Your task to perform on an android device: Open Wikipedia Image 0: 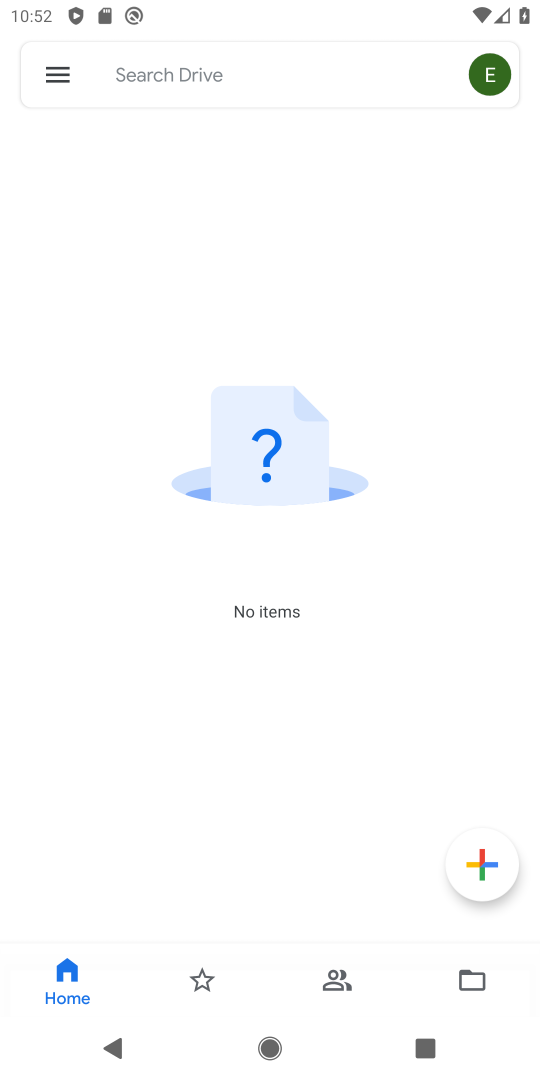
Step 0: press home button
Your task to perform on an android device: Open Wikipedia Image 1: 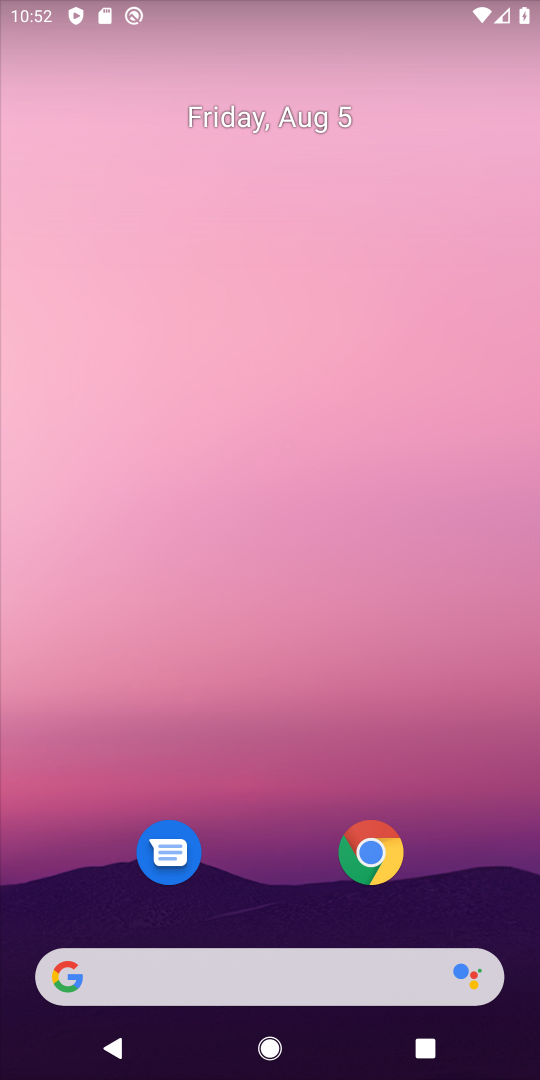
Step 1: drag from (276, 895) to (242, 508)
Your task to perform on an android device: Open Wikipedia Image 2: 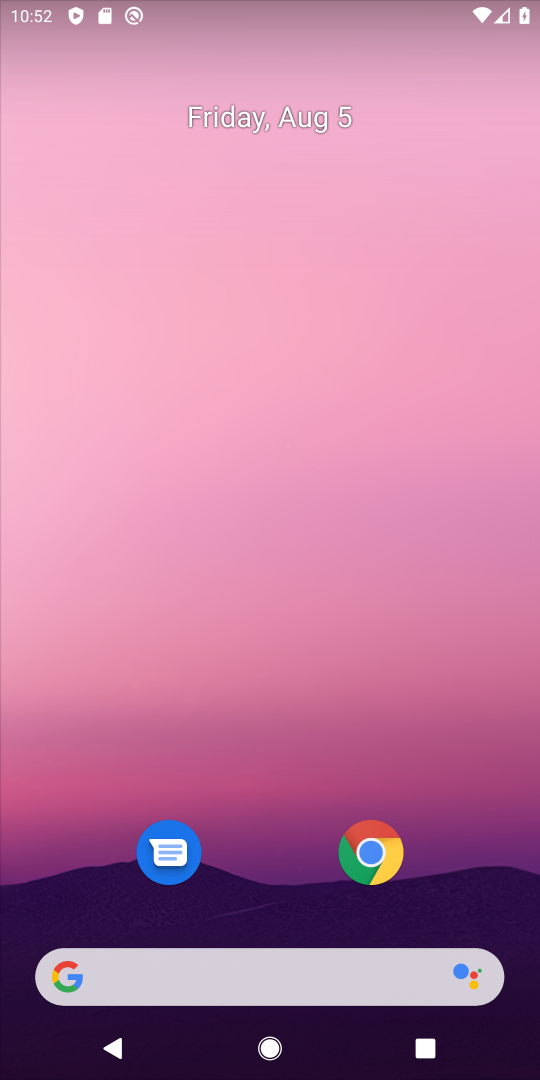
Step 2: drag from (232, 692) to (244, 495)
Your task to perform on an android device: Open Wikipedia Image 3: 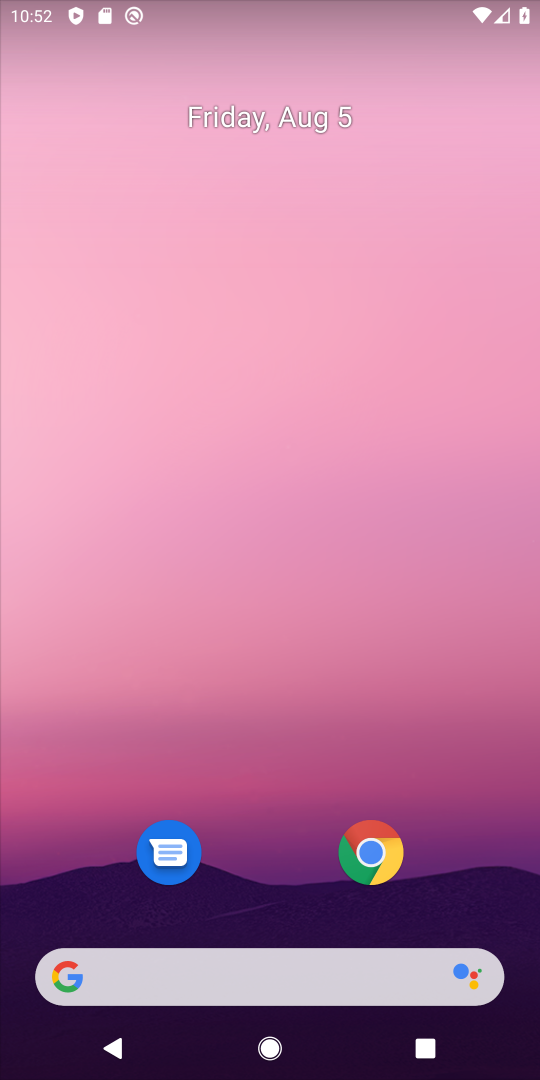
Step 3: drag from (264, 958) to (249, 461)
Your task to perform on an android device: Open Wikipedia Image 4: 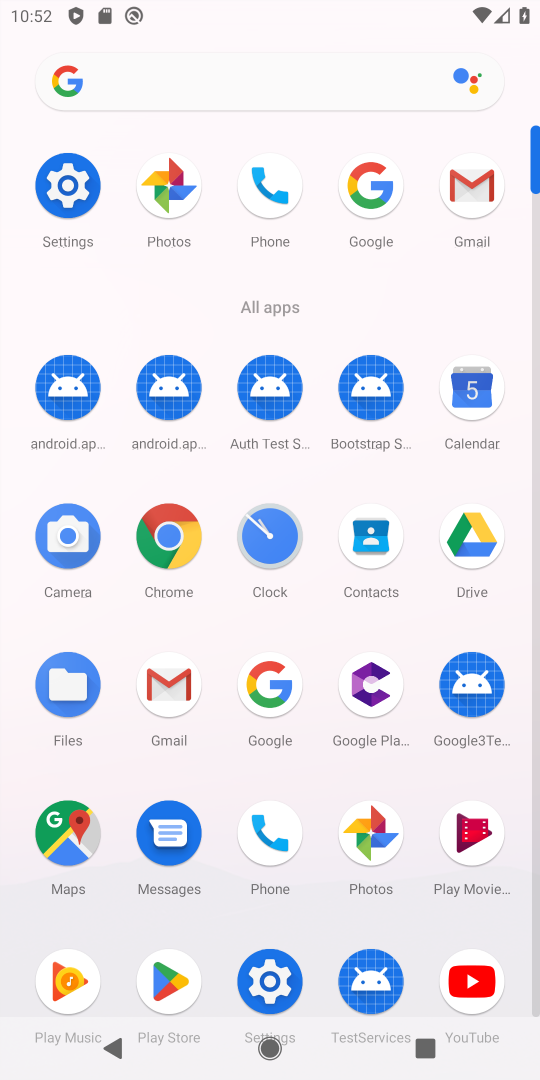
Step 4: click (177, 552)
Your task to perform on an android device: Open Wikipedia Image 5: 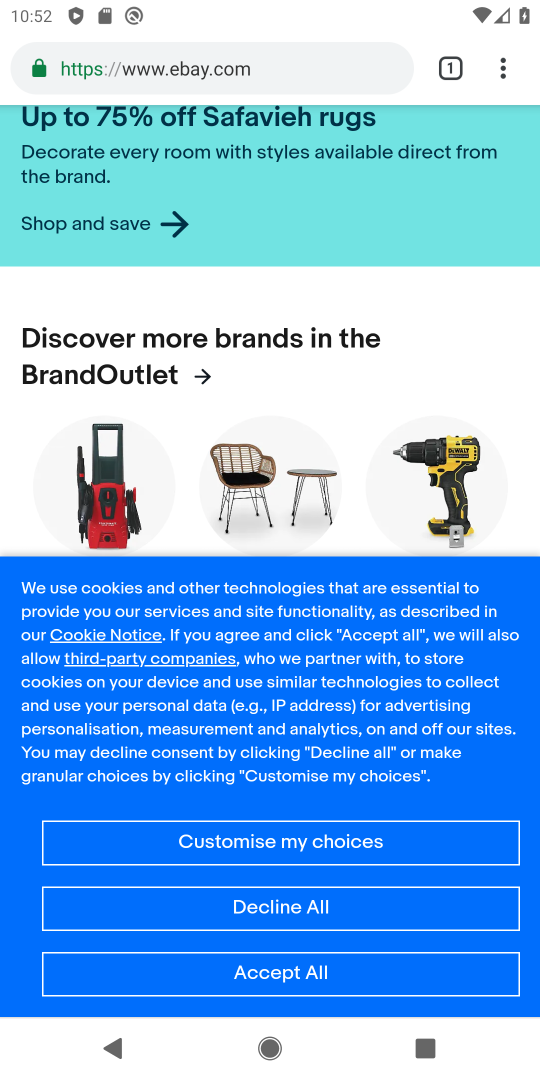
Step 5: drag from (230, 82) to (264, 590)
Your task to perform on an android device: Open Wikipedia Image 6: 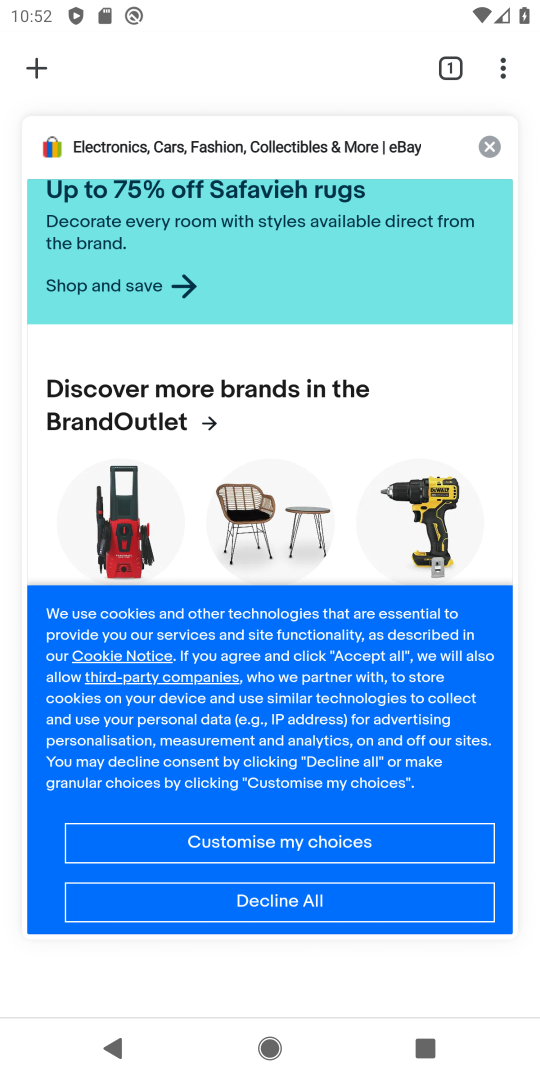
Step 6: click (32, 72)
Your task to perform on an android device: Open Wikipedia Image 7: 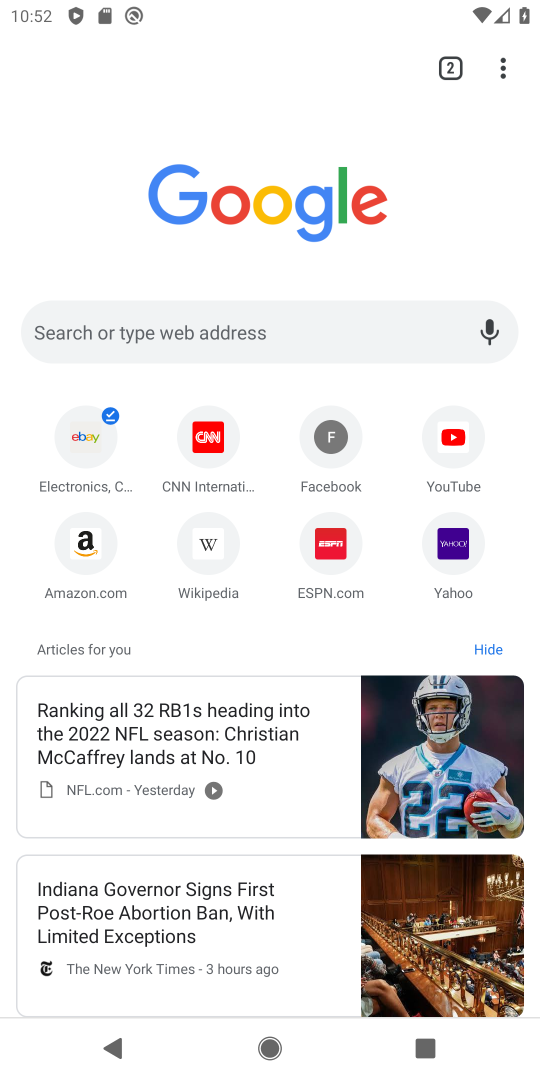
Step 7: click (216, 537)
Your task to perform on an android device: Open Wikipedia Image 8: 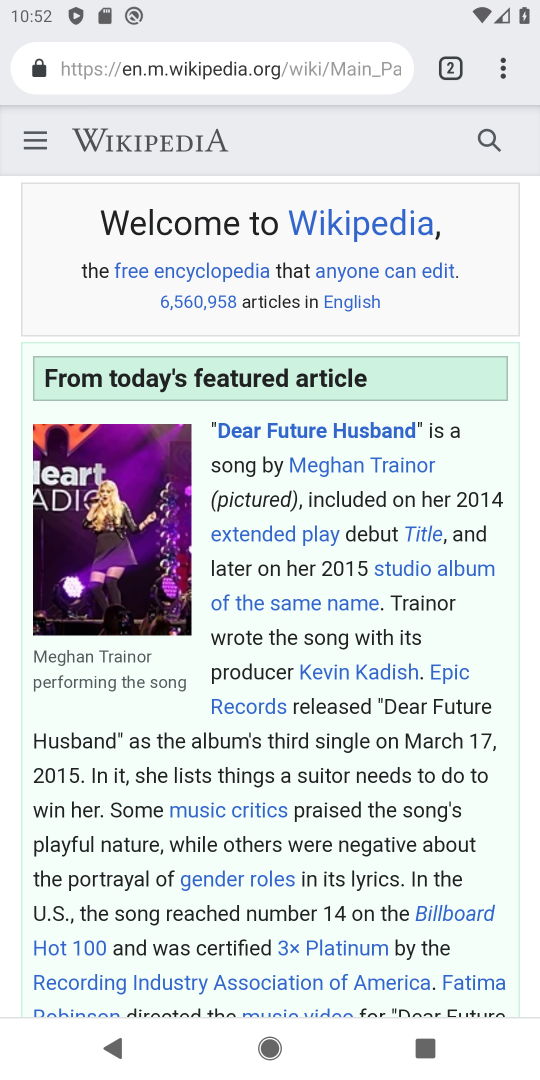
Step 8: task complete